Your task to perform on an android device: show emergency info Image 0: 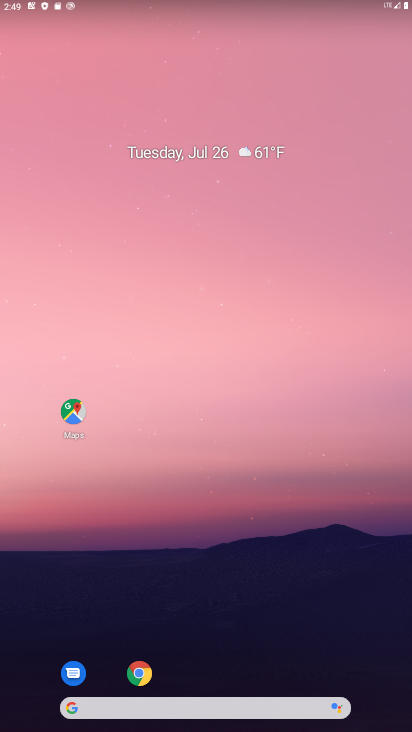
Step 0: drag from (206, 637) to (241, 73)
Your task to perform on an android device: show emergency info Image 1: 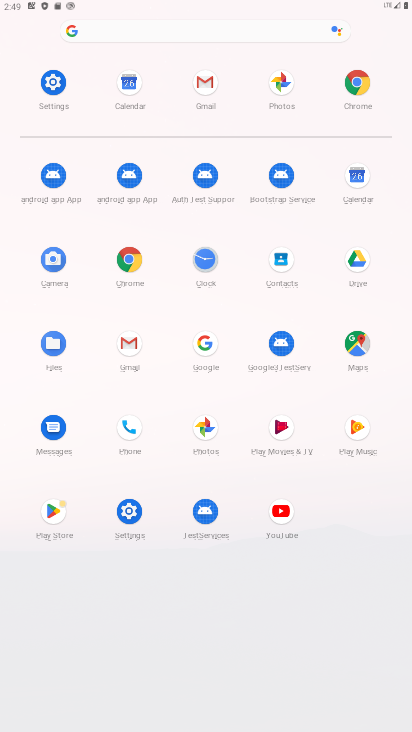
Step 1: click (101, 512)
Your task to perform on an android device: show emergency info Image 2: 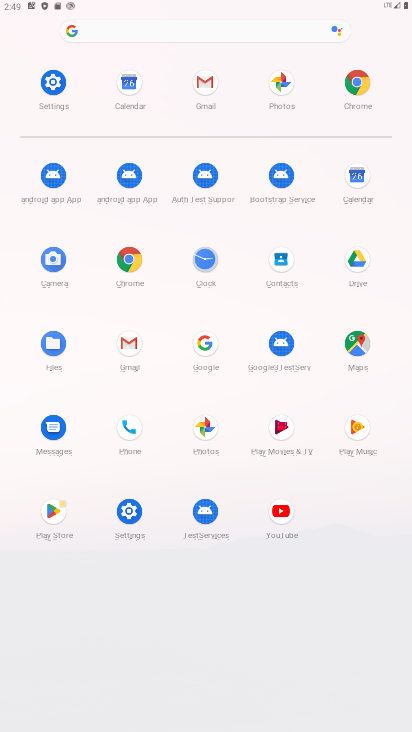
Step 2: click (102, 512)
Your task to perform on an android device: show emergency info Image 3: 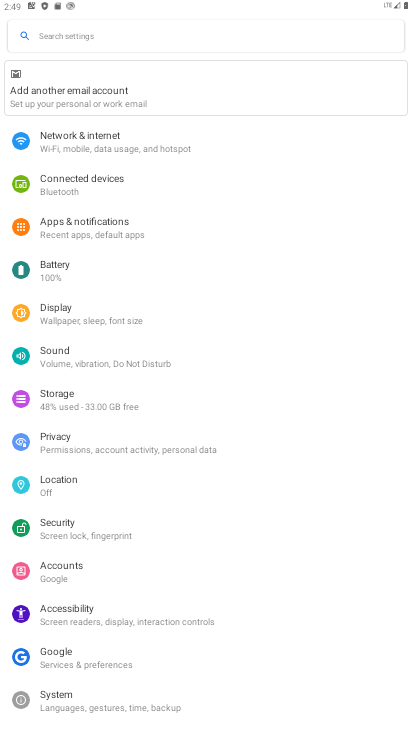
Step 3: drag from (110, 564) to (161, 251)
Your task to perform on an android device: show emergency info Image 4: 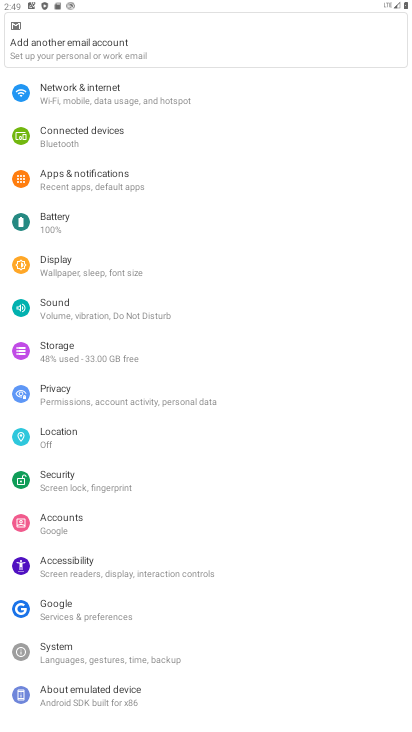
Step 4: click (108, 704)
Your task to perform on an android device: show emergency info Image 5: 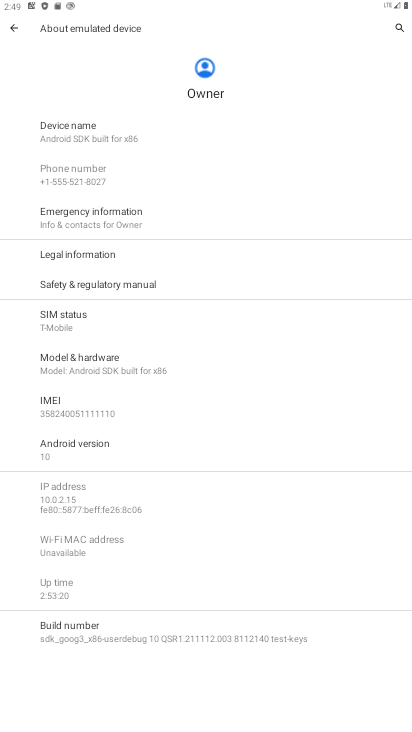
Step 5: click (136, 218)
Your task to perform on an android device: show emergency info Image 6: 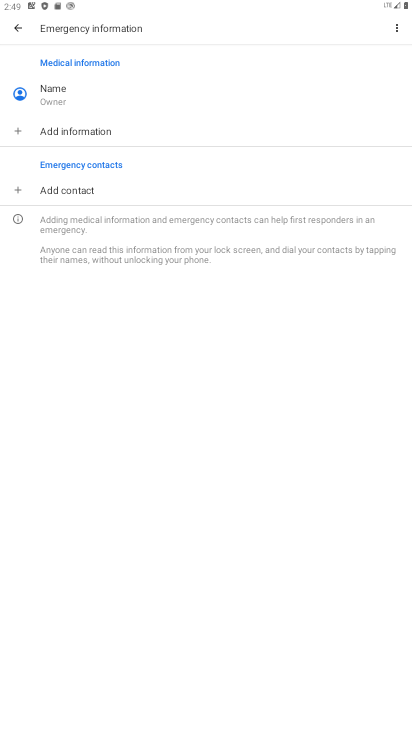
Step 6: task complete